Your task to perform on an android device: delete location history Image 0: 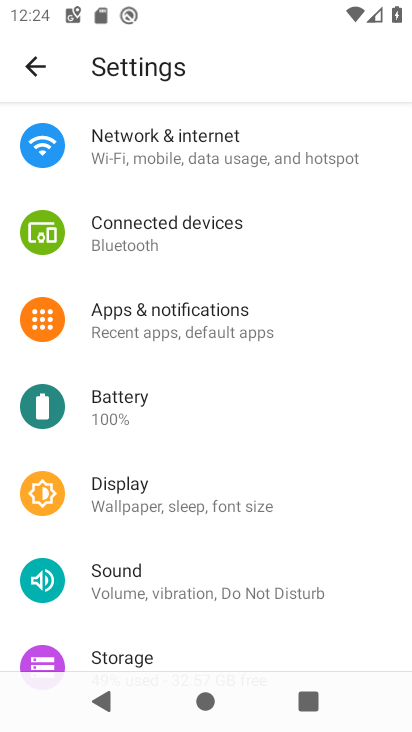
Step 0: press home button
Your task to perform on an android device: delete location history Image 1: 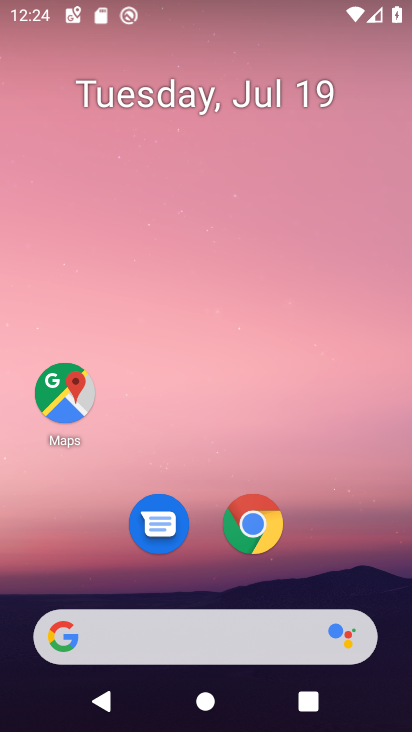
Step 1: click (70, 398)
Your task to perform on an android device: delete location history Image 2: 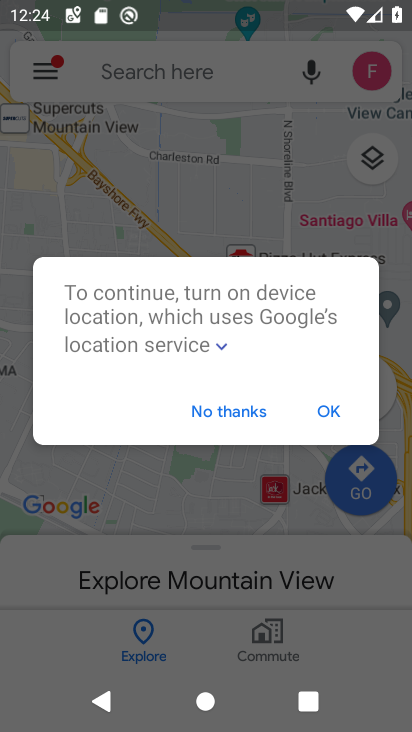
Step 2: click (330, 404)
Your task to perform on an android device: delete location history Image 3: 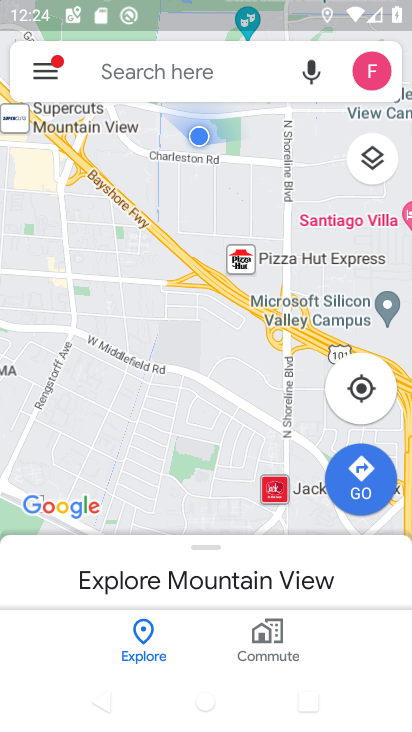
Step 3: click (41, 63)
Your task to perform on an android device: delete location history Image 4: 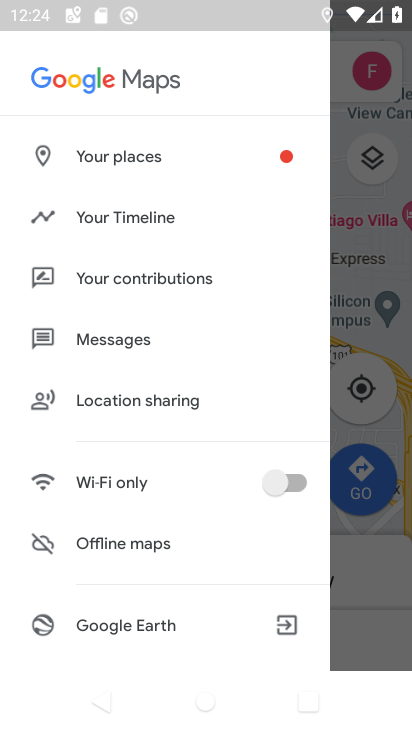
Step 4: click (125, 207)
Your task to perform on an android device: delete location history Image 5: 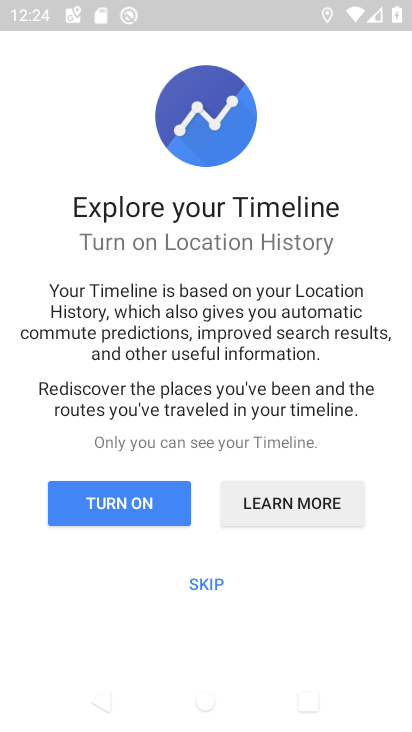
Step 5: click (171, 501)
Your task to perform on an android device: delete location history Image 6: 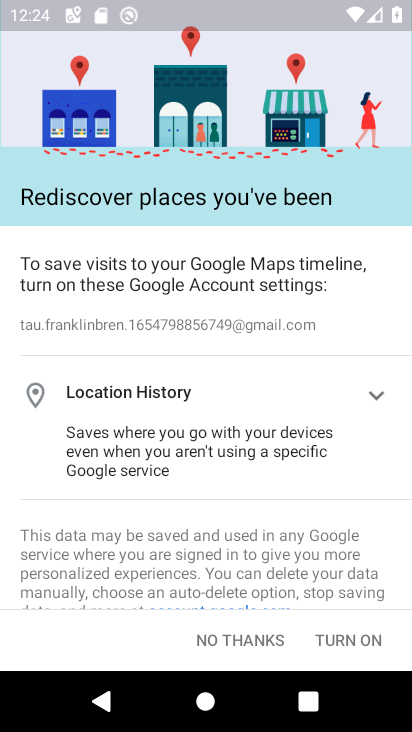
Step 6: click (357, 623)
Your task to perform on an android device: delete location history Image 7: 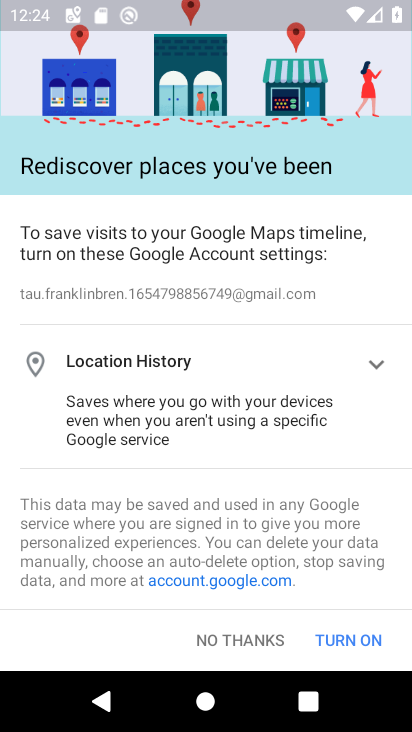
Step 7: click (360, 633)
Your task to perform on an android device: delete location history Image 8: 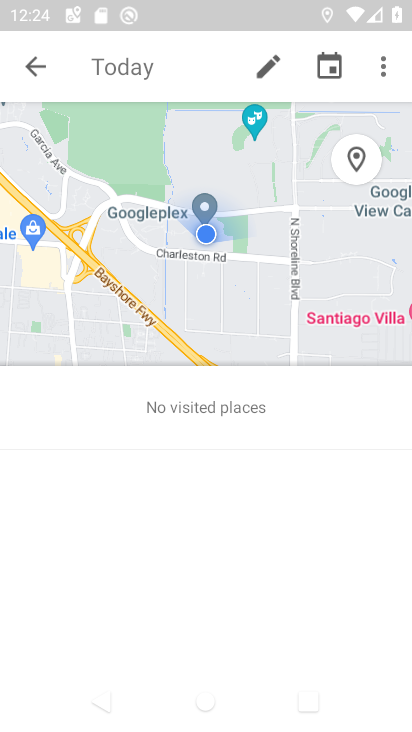
Step 8: click (383, 73)
Your task to perform on an android device: delete location history Image 9: 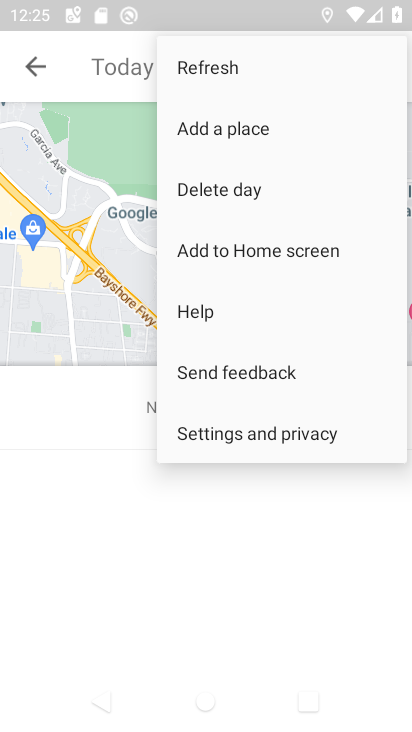
Step 9: click (315, 431)
Your task to perform on an android device: delete location history Image 10: 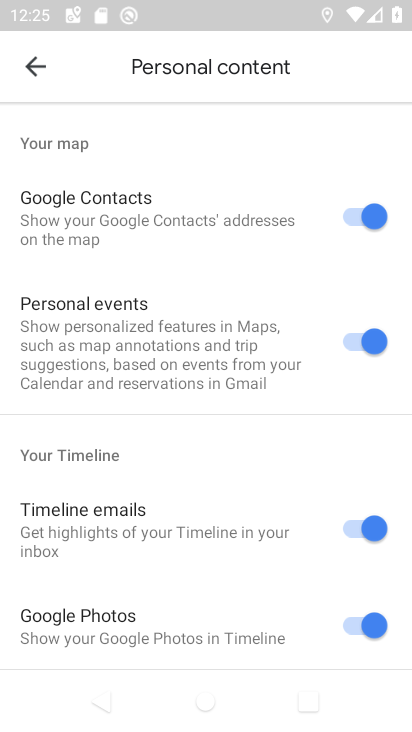
Step 10: drag from (265, 607) to (215, 100)
Your task to perform on an android device: delete location history Image 11: 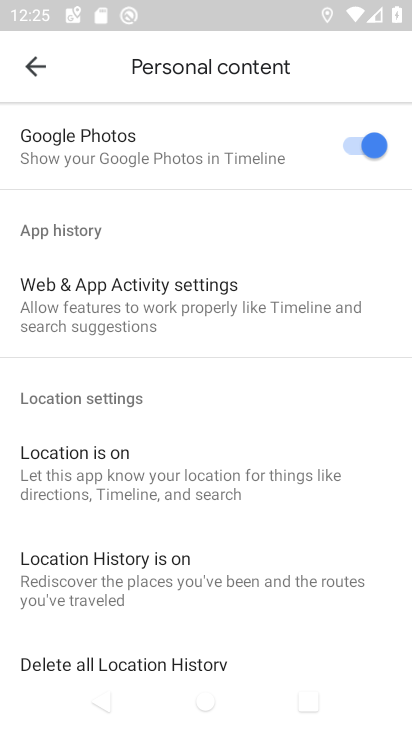
Step 11: drag from (253, 551) to (205, 153)
Your task to perform on an android device: delete location history Image 12: 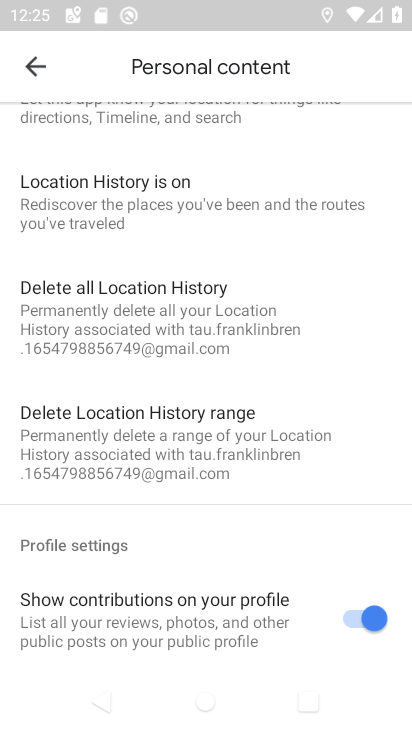
Step 12: click (231, 316)
Your task to perform on an android device: delete location history Image 13: 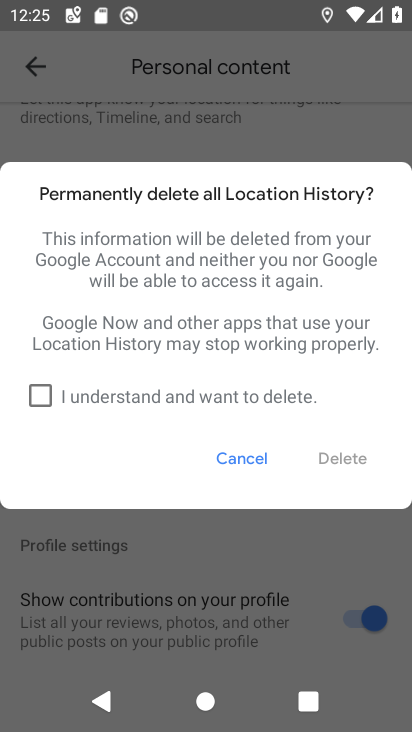
Step 13: click (48, 390)
Your task to perform on an android device: delete location history Image 14: 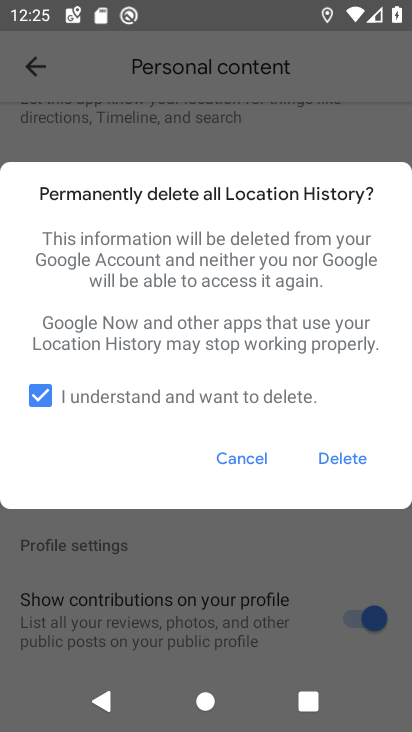
Step 14: click (346, 458)
Your task to perform on an android device: delete location history Image 15: 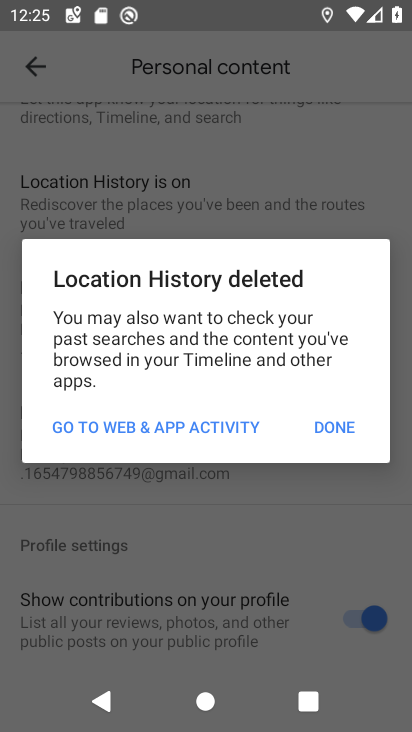
Step 15: click (334, 409)
Your task to perform on an android device: delete location history Image 16: 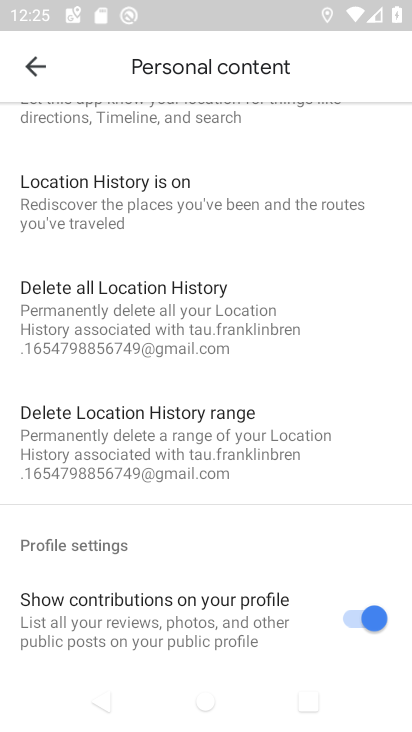
Step 16: task complete